Your task to perform on an android device: Open Youtube and go to "Your channel" Image 0: 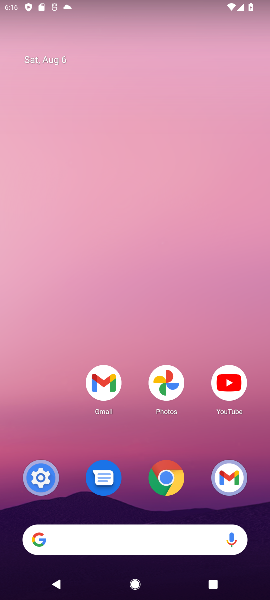
Step 0: press home button
Your task to perform on an android device: Open Youtube and go to "Your channel" Image 1: 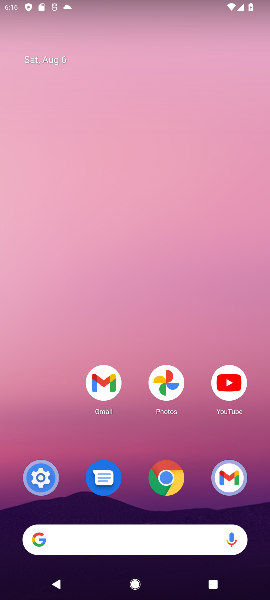
Step 1: click (243, 383)
Your task to perform on an android device: Open Youtube and go to "Your channel" Image 2: 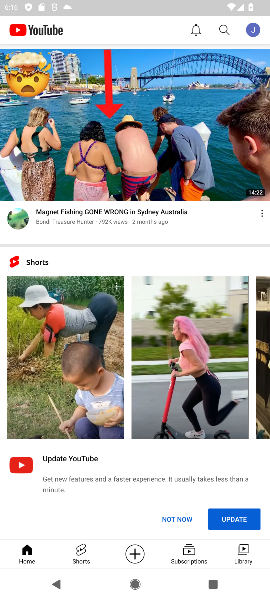
Step 2: click (249, 31)
Your task to perform on an android device: Open Youtube and go to "Your channel" Image 3: 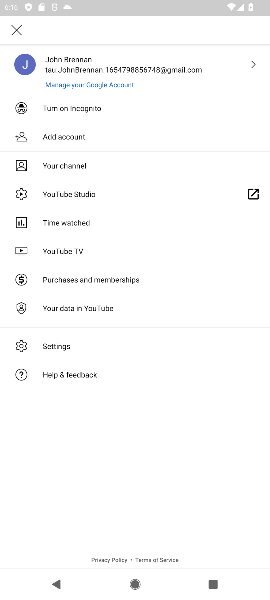
Step 3: click (72, 164)
Your task to perform on an android device: Open Youtube and go to "Your channel" Image 4: 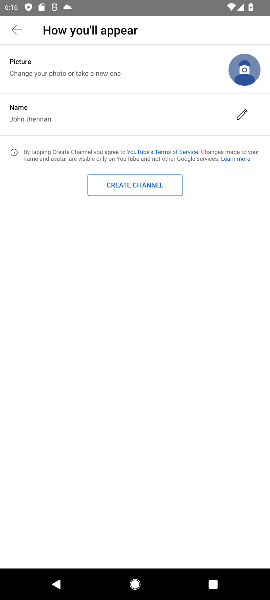
Step 4: task complete